Your task to perform on an android device: Go to accessibility settings Image 0: 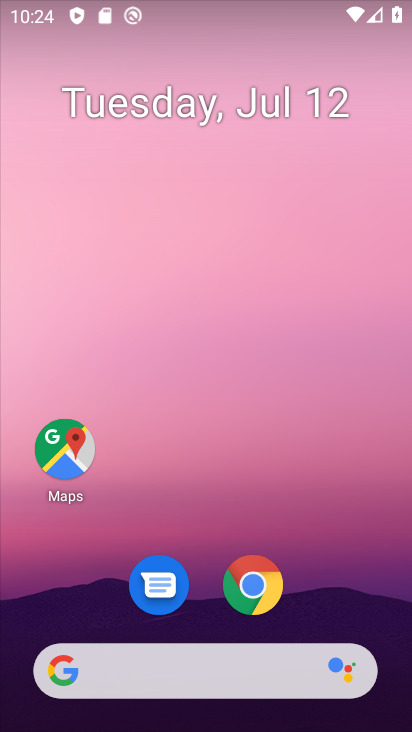
Step 0: drag from (292, 496) to (285, 0)
Your task to perform on an android device: Go to accessibility settings Image 1: 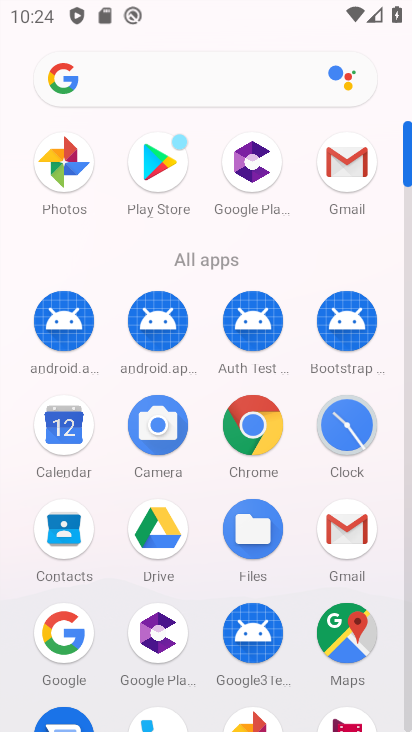
Step 1: drag from (204, 400) to (213, 77)
Your task to perform on an android device: Go to accessibility settings Image 2: 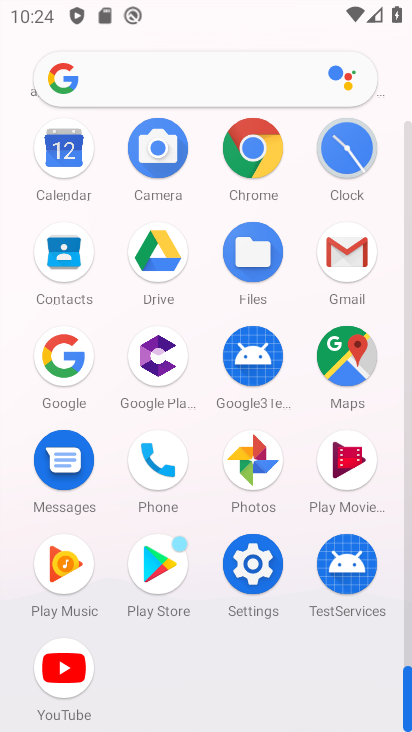
Step 2: click (262, 564)
Your task to perform on an android device: Go to accessibility settings Image 3: 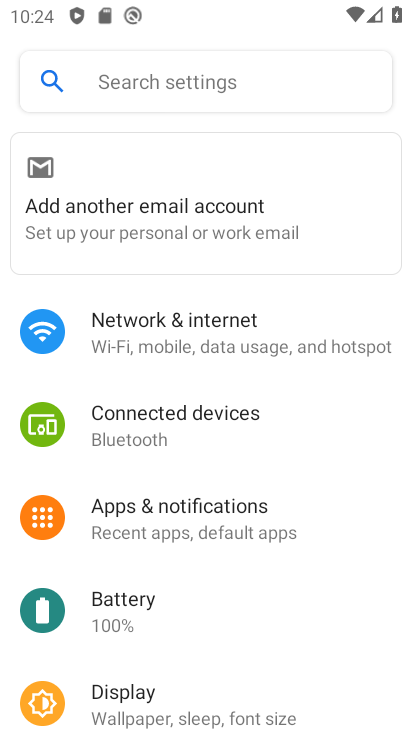
Step 3: drag from (246, 613) to (281, 16)
Your task to perform on an android device: Go to accessibility settings Image 4: 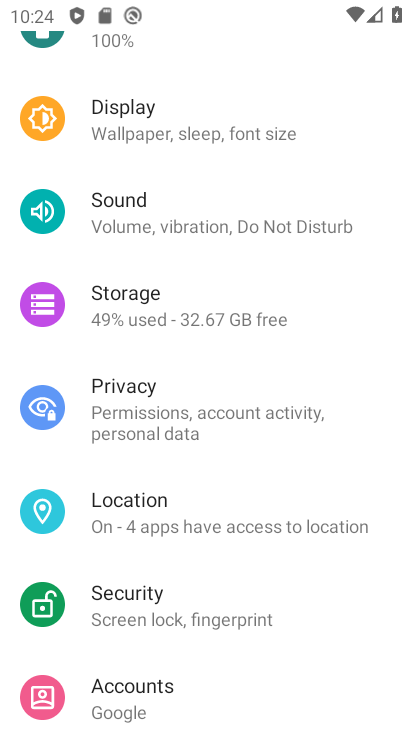
Step 4: drag from (281, 576) to (294, 0)
Your task to perform on an android device: Go to accessibility settings Image 5: 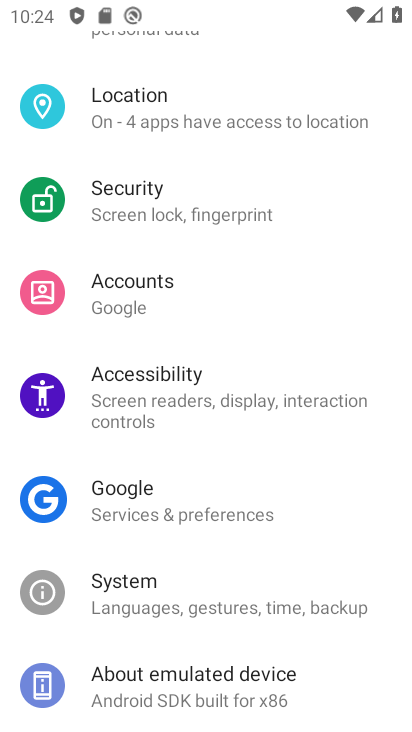
Step 5: click (256, 400)
Your task to perform on an android device: Go to accessibility settings Image 6: 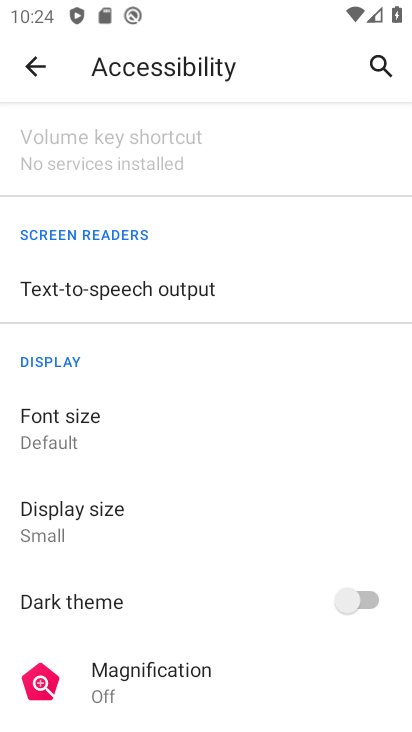
Step 6: task complete